Your task to perform on an android device: open app "Chime – Mobile Banking" (install if not already installed) and enter user name: "bullfrog@inbox.com" and password: "breaker" Image 0: 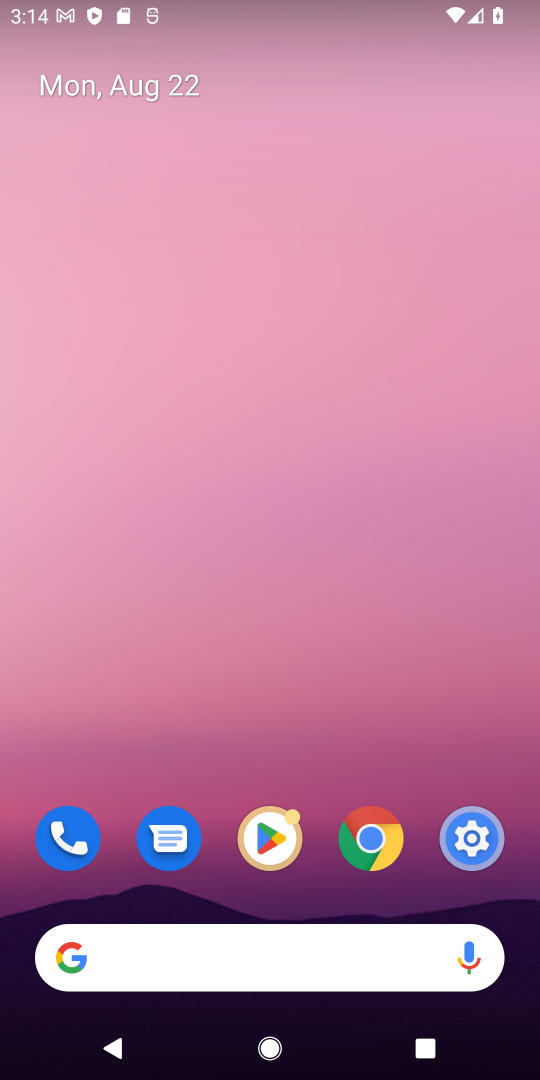
Step 0: click (272, 828)
Your task to perform on an android device: open app "Chime – Mobile Banking" (install if not already installed) and enter user name: "bullfrog@inbox.com" and password: "breaker" Image 1: 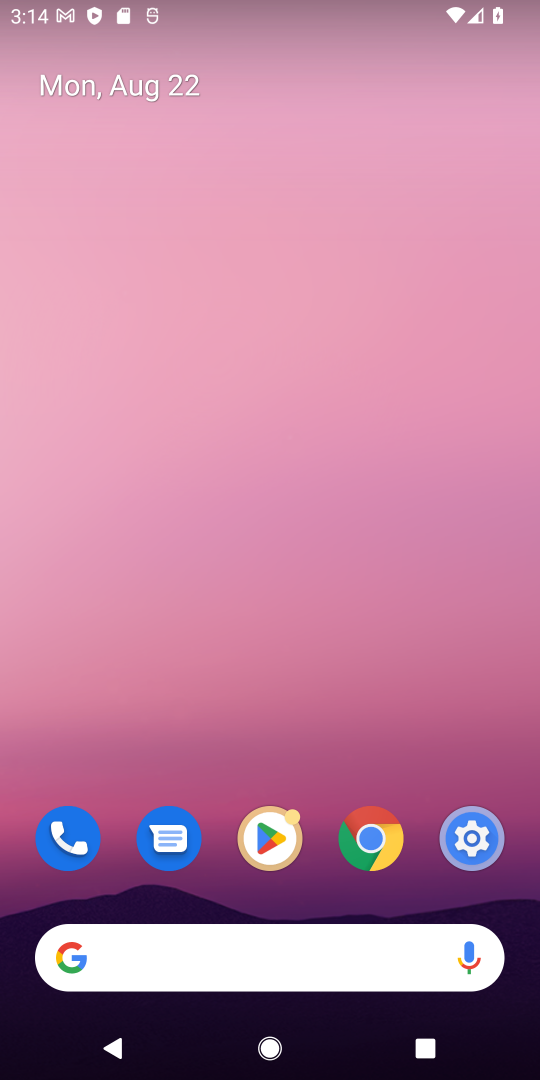
Step 1: click (262, 849)
Your task to perform on an android device: open app "Chime – Mobile Banking" (install if not already installed) and enter user name: "bullfrog@inbox.com" and password: "breaker" Image 2: 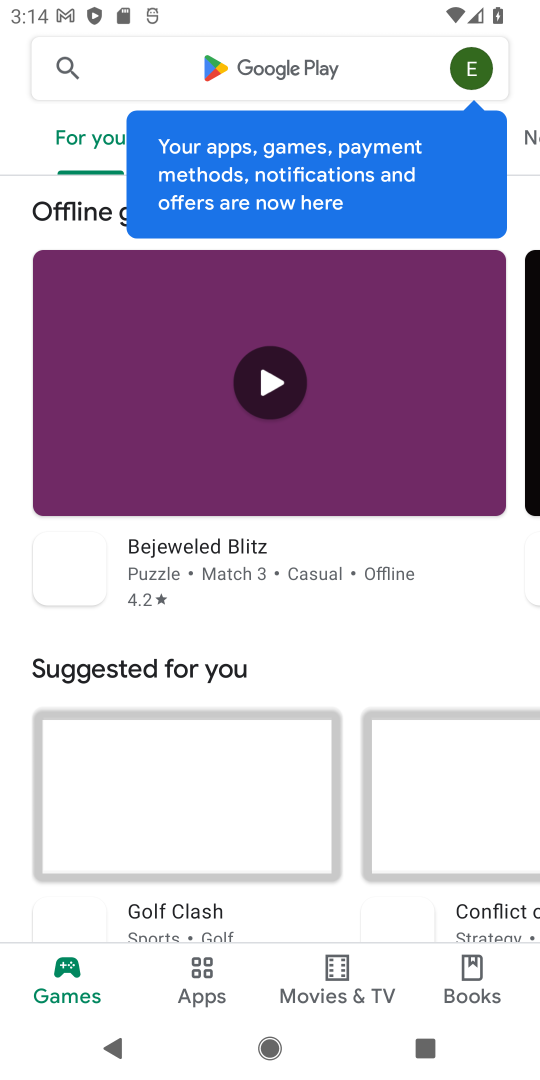
Step 2: click (287, 65)
Your task to perform on an android device: open app "Chime – Mobile Banking" (install if not already installed) and enter user name: "bullfrog@inbox.com" and password: "breaker" Image 3: 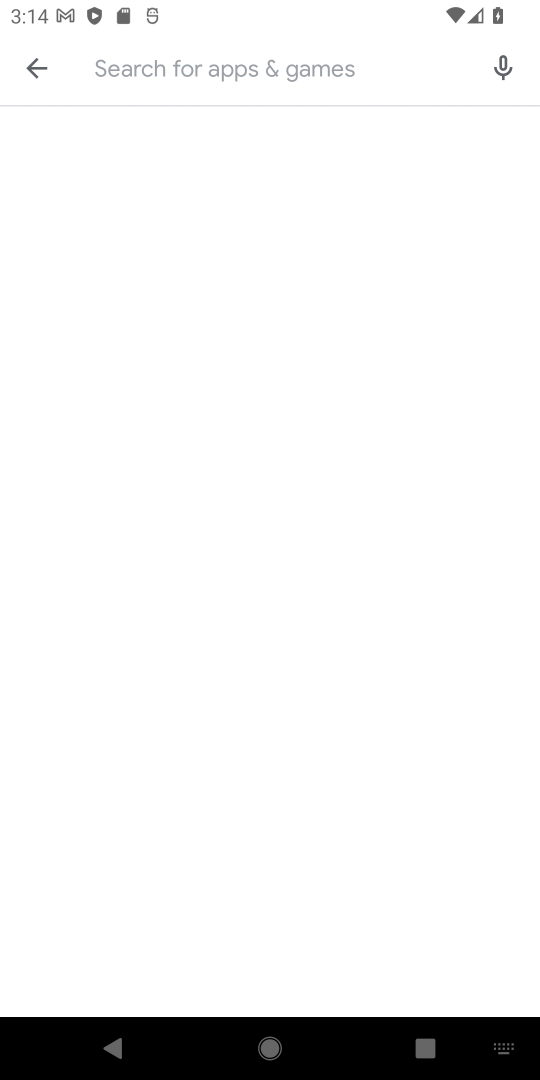
Step 3: type "chime"
Your task to perform on an android device: open app "Chime – Mobile Banking" (install if not already installed) and enter user name: "bullfrog@inbox.com" and password: "breaker" Image 4: 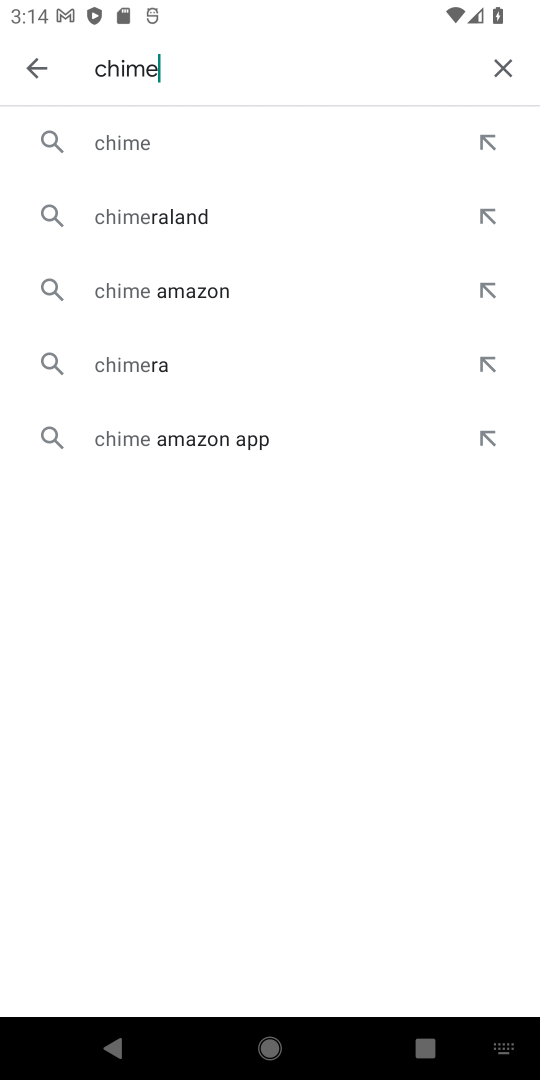
Step 4: click (149, 132)
Your task to perform on an android device: open app "Chime – Mobile Banking" (install if not already installed) and enter user name: "bullfrog@inbox.com" and password: "breaker" Image 5: 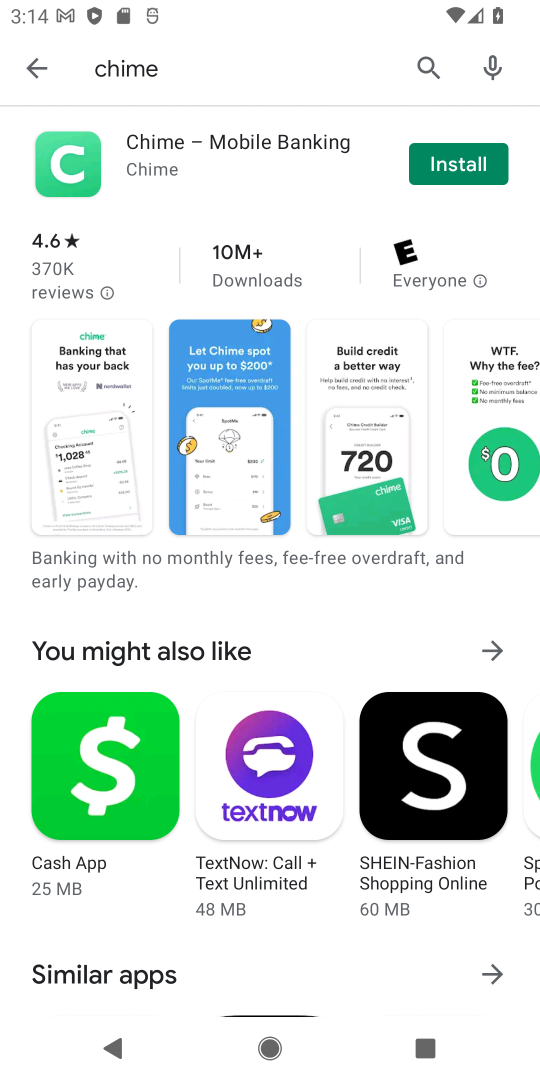
Step 5: click (445, 167)
Your task to perform on an android device: open app "Chime – Mobile Banking" (install if not already installed) and enter user name: "bullfrog@inbox.com" and password: "breaker" Image 6: 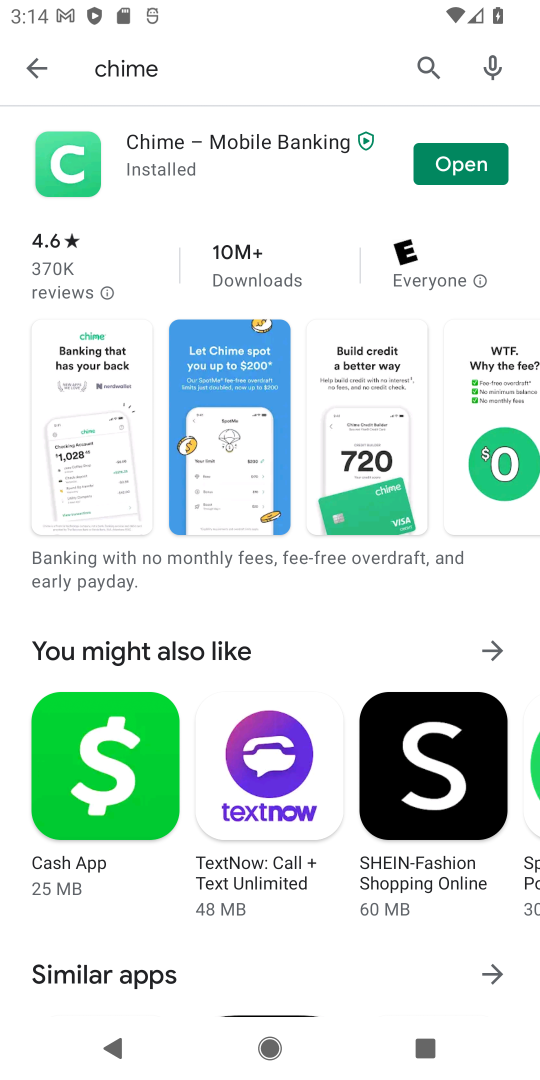
Step 6: click (474, 172)
Your task to perform on an android device: open app "Chime – Mobile Banking" (install if not already installed) and enter user name: "bullfrog@inbox.com" and password: "breaker" Image 7: 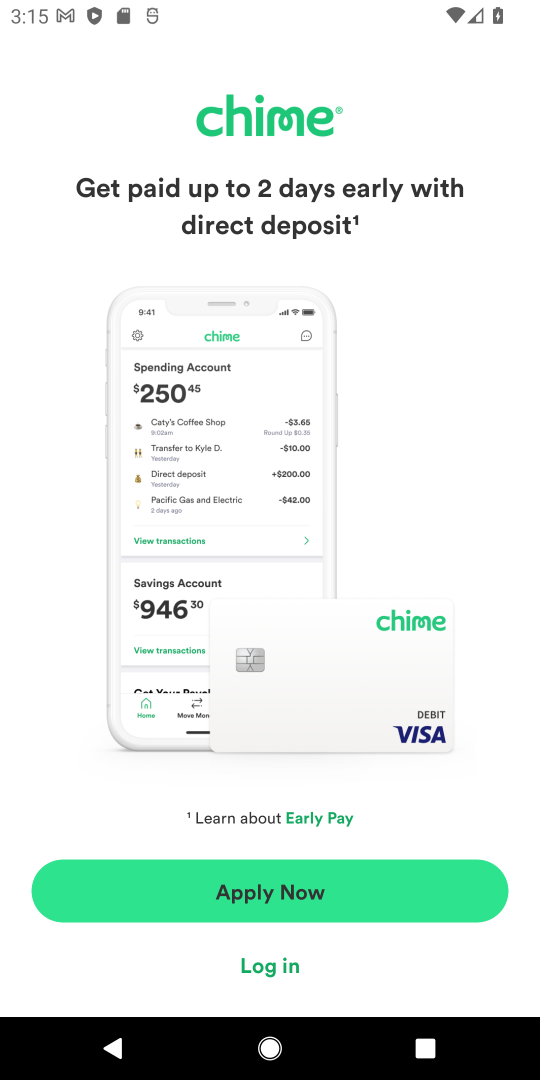
Step 7: click (276, 956)
Your task to perform on an android device: open app "Chime – Mobile Banking" (install if not already installed) and enter user name: "bullfrog@inbox.com" and password: "breaker" Image 8: 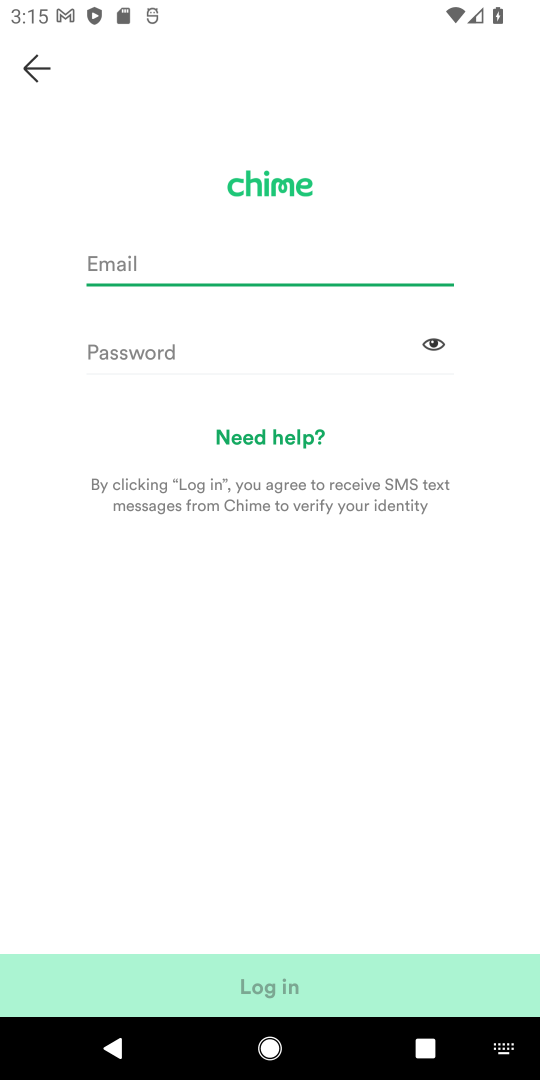
Step 8: click (143, 267)
Your task to perform on an android device: open app "Chime – Mobile Banking" (install if not already installed) and enter user name: "bullfrog@inbox.com" and password: "breaker" Image 9: 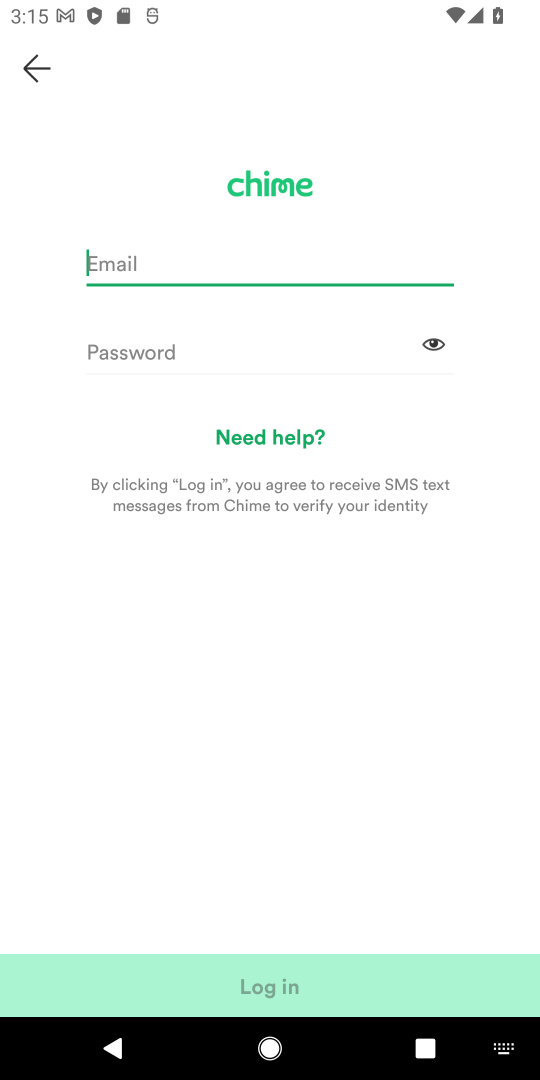
Step 9: type "bullfrog@inbox.com"
Your task to perform on an android device: open app "Chime – Mobile Banking" (install if not already installed) and enter user name: "bullfrog@inbox.com" and password: "breaker" Image 10: 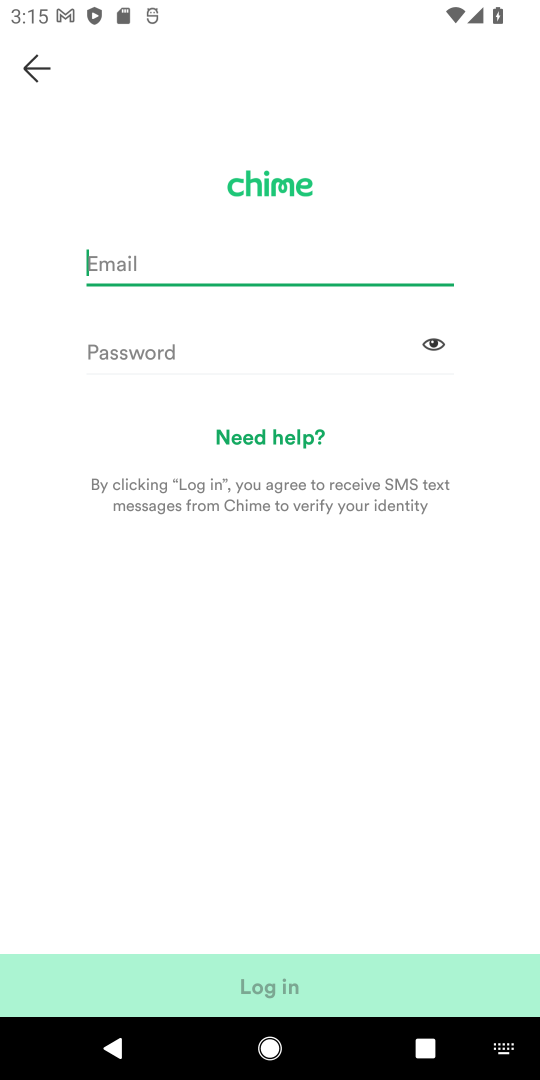
Step 10: click (124, 368)
Your task to perform on an android device: open app "Chime – Mobile Banking" (install if not already installed) and enter user name: "bullfrog@inbox.com" and password: "breaker" Image 11: 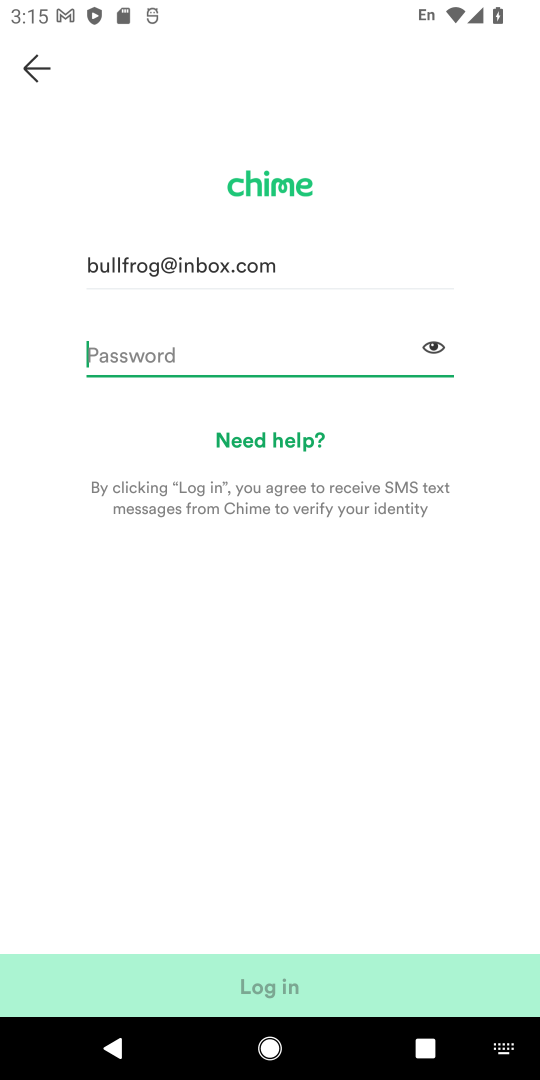
Step 11: click (175, 323)
Your task to perform on an android device: open app "Chime – Mobile Banking" (install if not already installed) and enter user name: "bullfrog@inbox.com" and password: "breaker" Image 12: 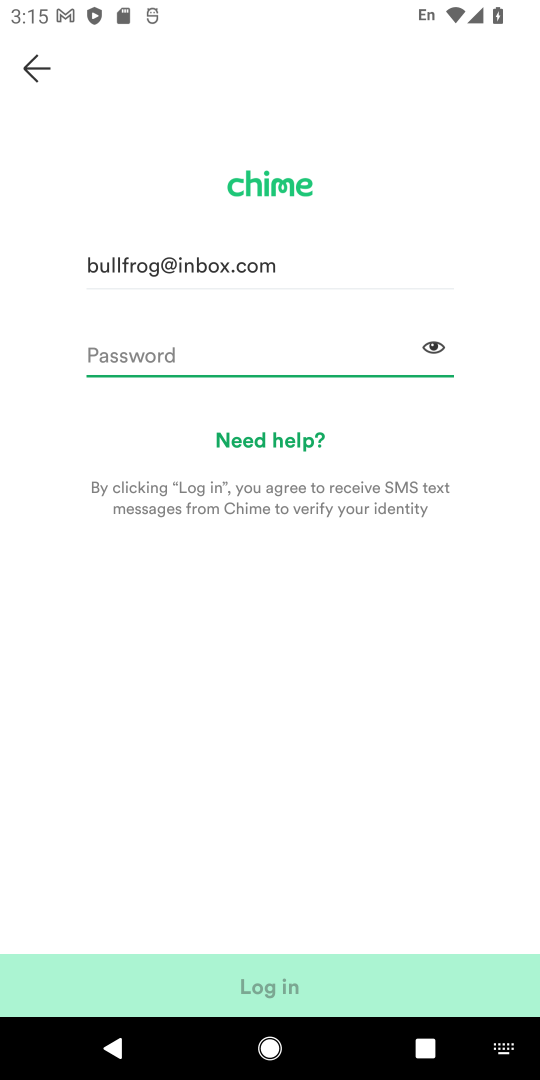
Step 12: type "breaker"
Your task to perform on an android device: open app "Chime – Mobile Banking" (install if not already installed) and enter user name: "bullfrog@inbox.com" and password: "breaker" Image 13: 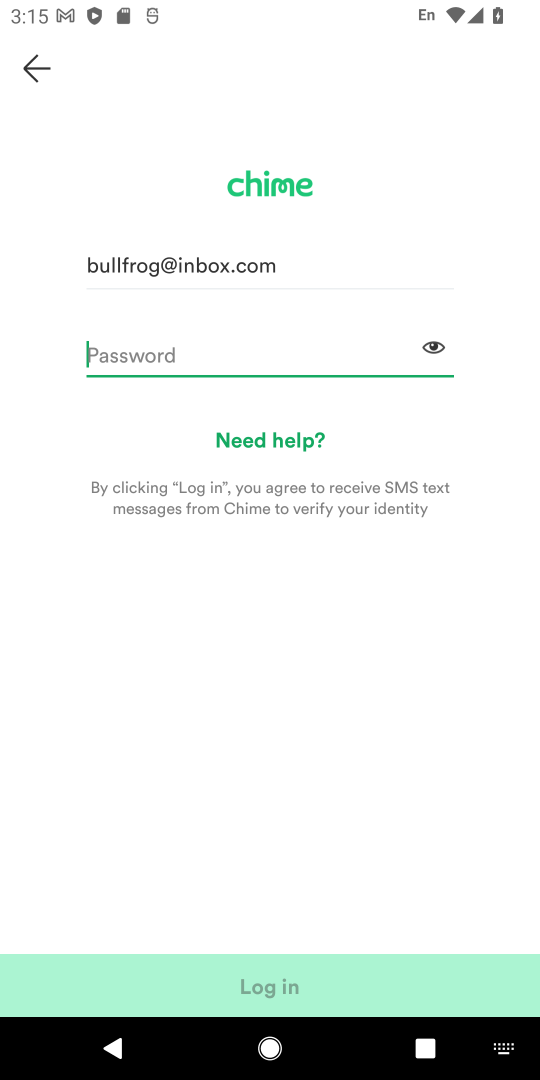
Step 13: click (159, 765)
Your task to perform on an android device: open app "Chime – Mobile Banking" (install if not already installed) and enter user name: "bullfrog@inbox.com" and password: "breaker" Image 14: 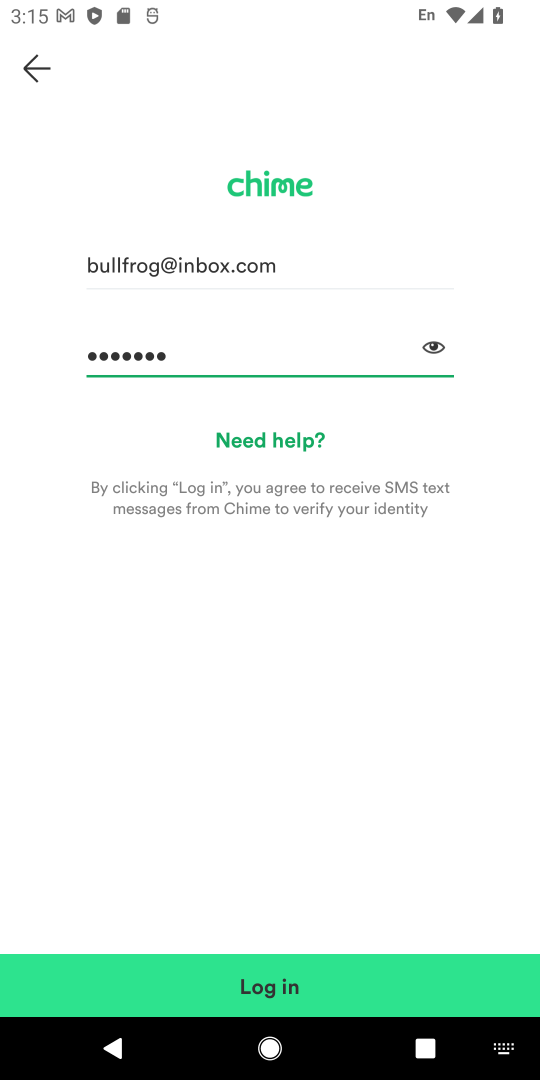
Step 14: task complete